Your task to perform on an android device: turn on improve location accuracy Image 0: 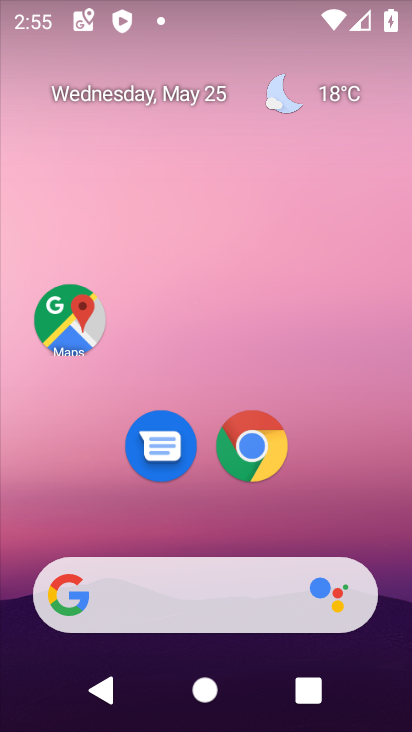
Step 0: drag from (249, 564) to (342, 38)
Your task to perform on an android device: turn on improve location accuracy Image 1: 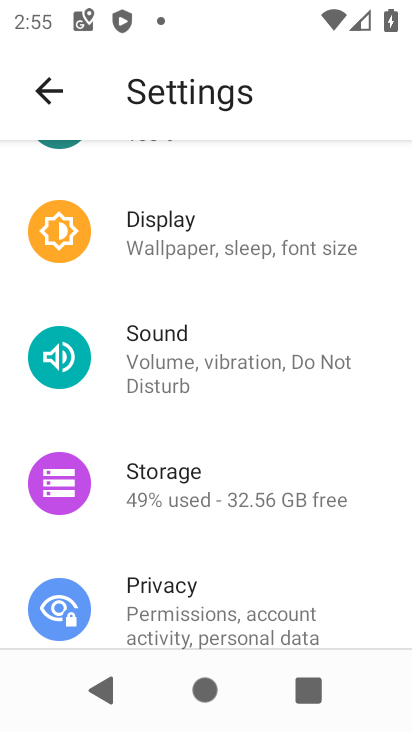
Step 1: drag from (216, 560) to (236, 150)
Your task to perform on an android device: turn on improve location accuracy Image 2: 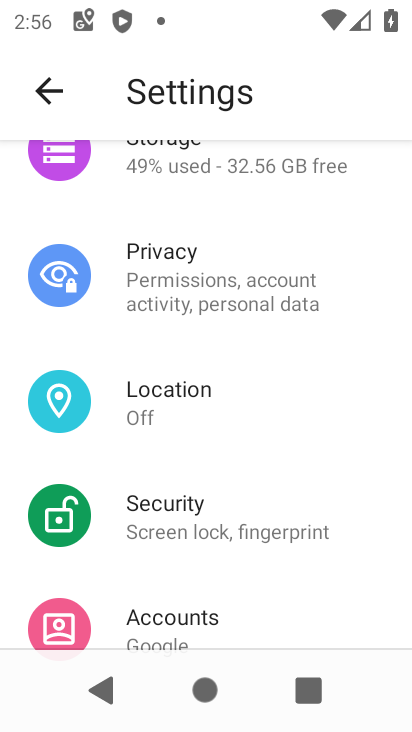
Step 2: click (183, 410)
Your task to perform on an android device: turn on improve location accuracy Image 3: 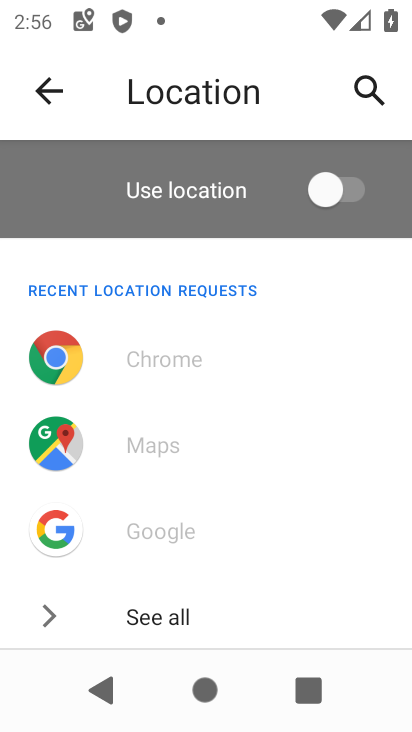
Step 3: click (334, 197)
Your task to perform on an android device: turn on improve location accuracy Image 4: 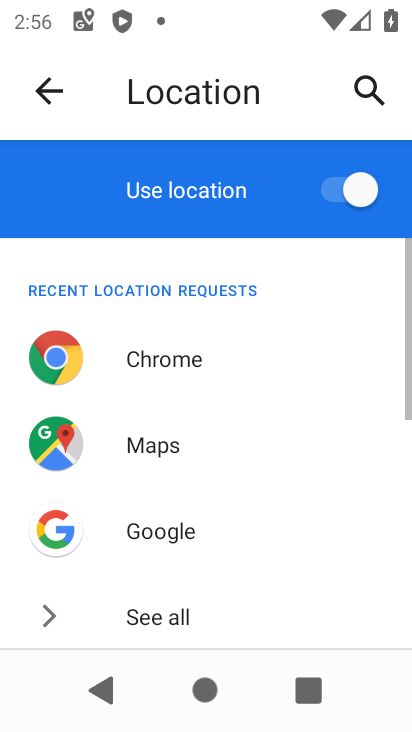
Step 4: drag from (220, 600) to (205, 193)
Your task to perform on an android device: turn on improve location accuracy Image 5: 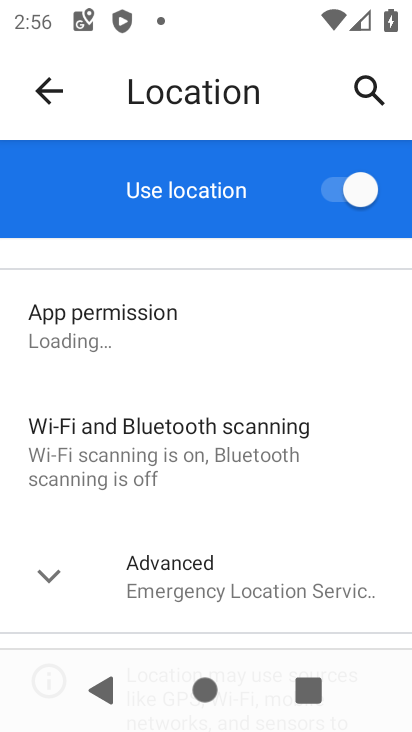
Step 5: click (209, 606)
Your task to perform on an android device: turn on improve location accuracy Image 6: 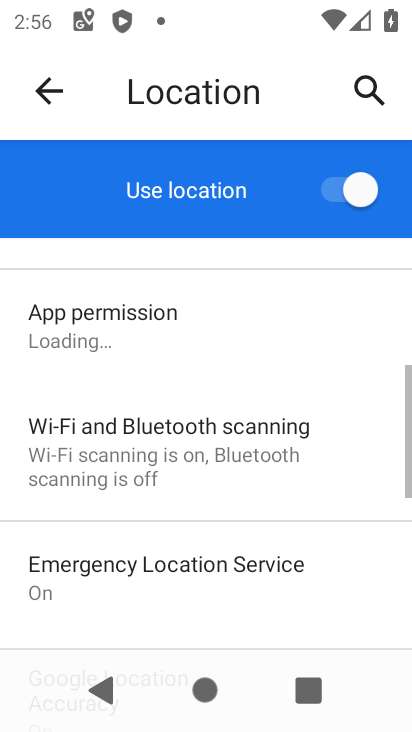
Step 6: drag from (217, 544) to (189, 253)
Your task to perform on an android device: turn on improve location accuracy Image 7: 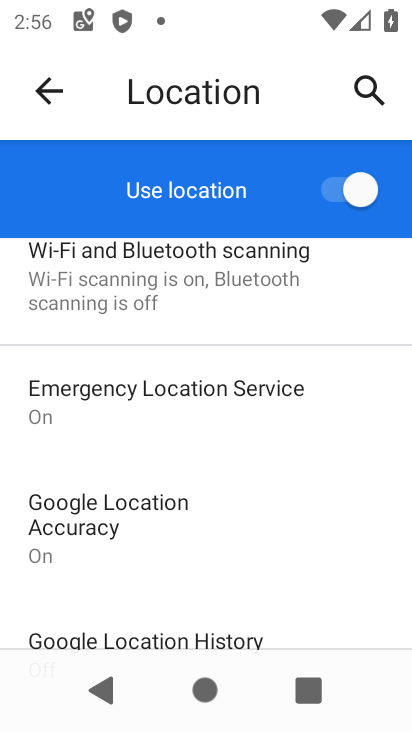
Step 7: click (186, 533)
Your task to perform on an android device: turn on improve location accuracy Image 8: 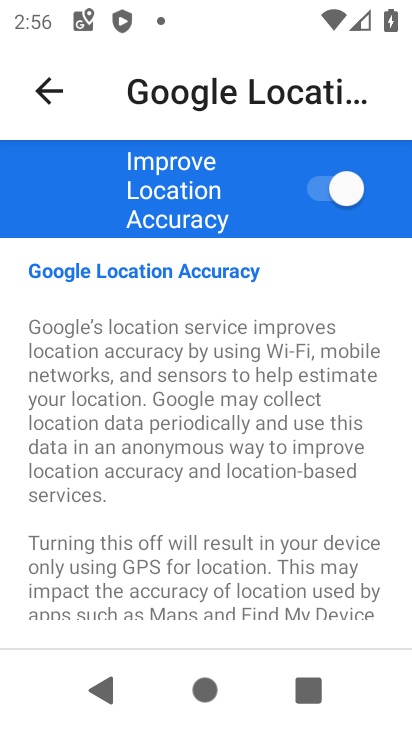
Step 8: task complete